Your task to perform on an android device: change the clock display to digital Image 0: 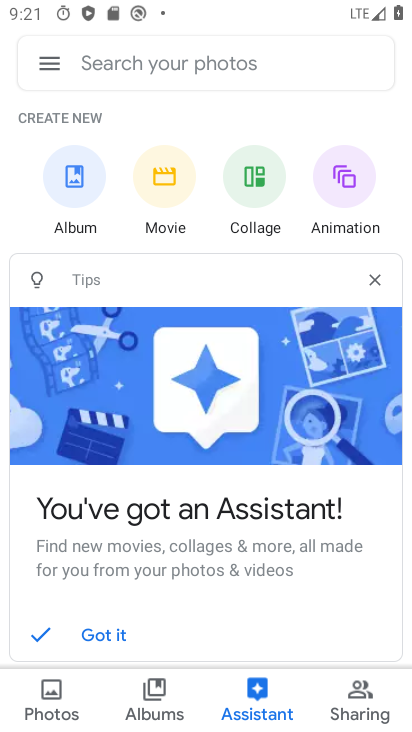
Step 0: press home button
Your task to perform on an android device: change the clock display to digital Image 1: 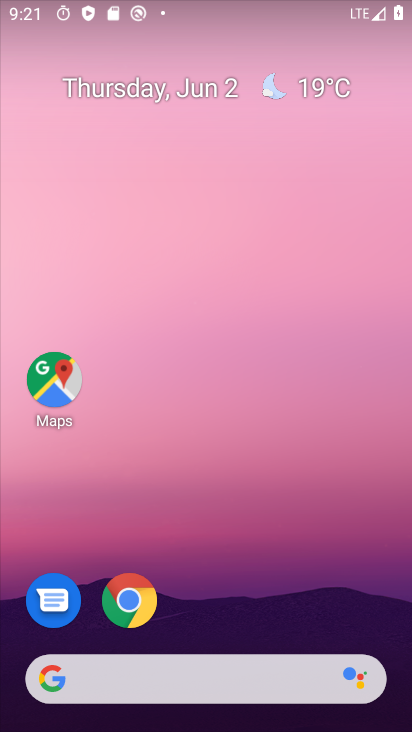
Step 1: drag from (205, 613) to (182, 46)
Your task to perform on an android device: change the clock display to digital Image 2: 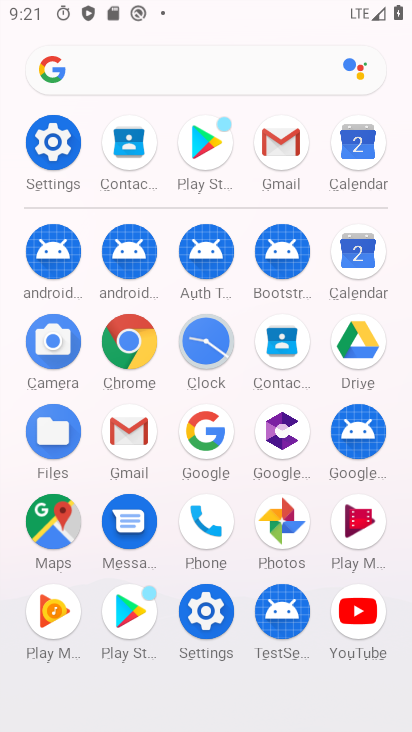
Step 2: click (210, 326)
Your task to perform on an android device: change the clock display to digital Image 3: 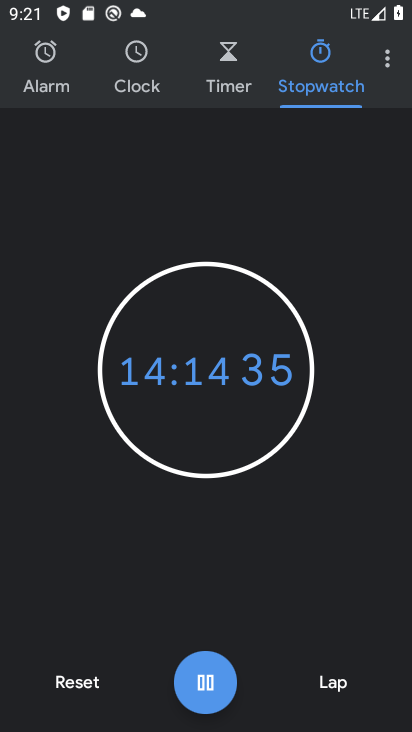
Step 3: click (382, 60)
Your task to perform on an android device: change the clock display to digital Image 4: 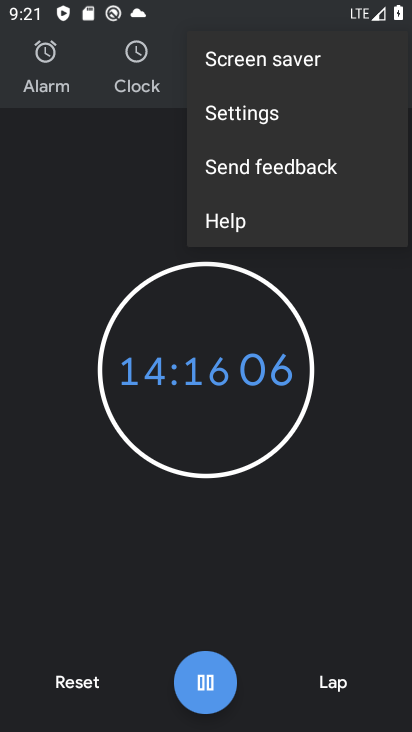
Step 4: click (293, 110)
Your task to perform on an android device: change the clock display to digital Image 5: 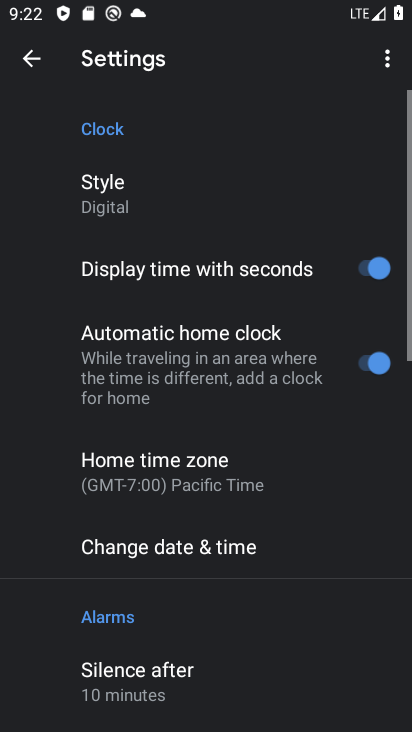
Step 5: click (146, 201)
Your task to perform on an android device: change the clock display to digital Image 6: 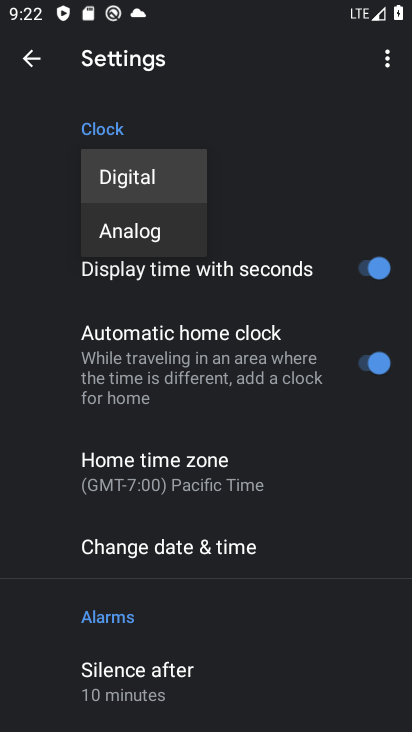
Step 6: task complete